Your task to perform on an android device: turn off priority inbox in the gmail app Image 0: 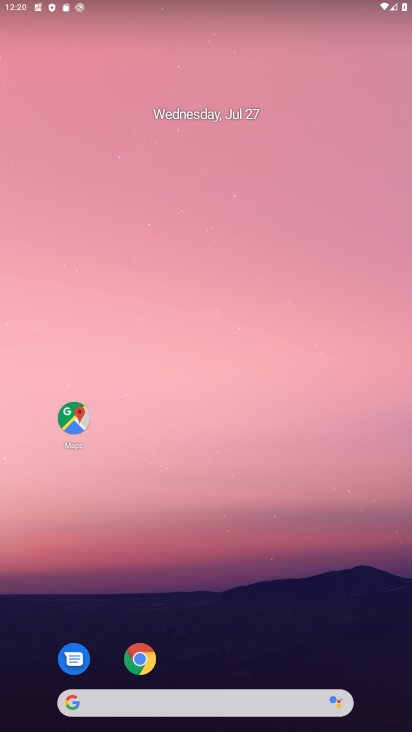
Step 0: drag from (201, 618) to (174, 146)
Your task to perform on an android device: turn off priority inbox in the gmail app Image 1: 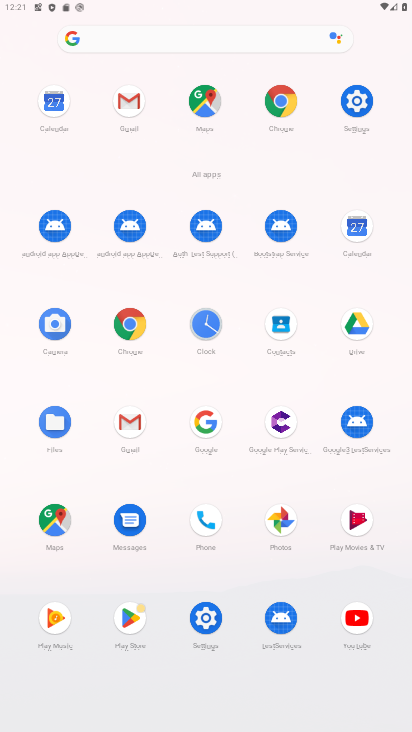
Step 1: click (121, 415)
Your task to perform on an android device: turn off priority inbox in the gmail app Image 2: 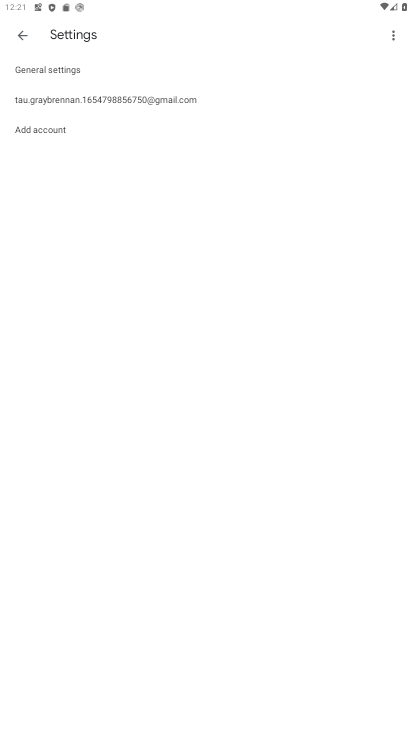
Step 2: click (154, 102)
Your task to perform on an android device: turn off priority inbox in the gmail app Image 3: 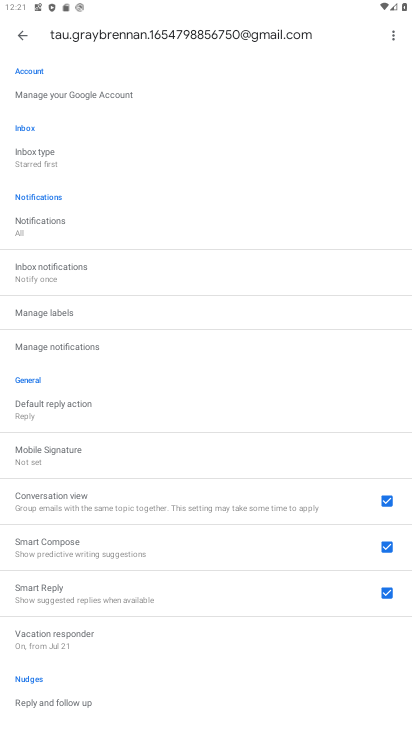
Step 3: click (71, 151)
Your task to perform on an android device: turn off priority inbox in the gmail app Image 4: 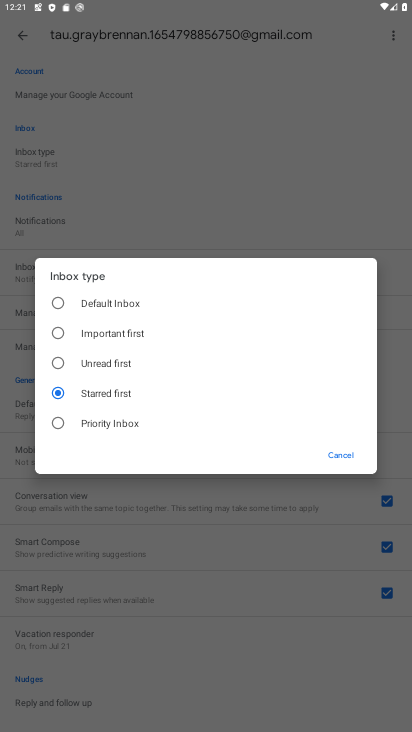
Step 4: click (53, 304)
Your task to perform on an android device: turn off priority inbox in the gmail app Image 5: 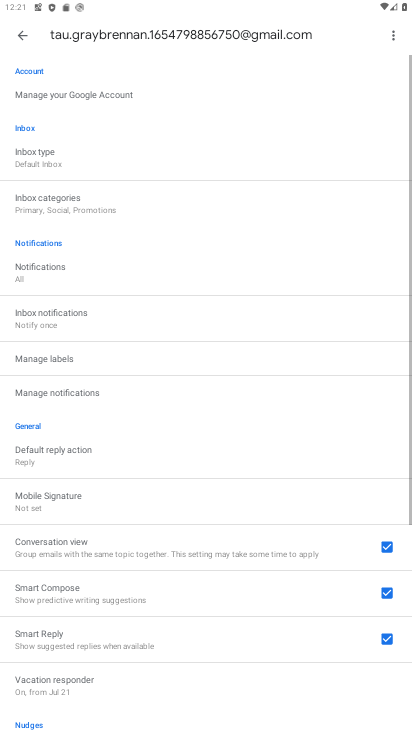
Step 5: task complete